Your task to perform on an android device: Open the phone app and click the voicemail tab. Image 0: 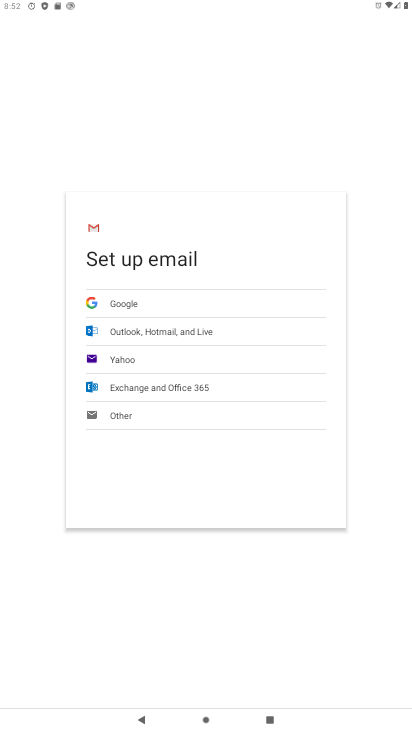
Step 0: press home button
Your task to perform on an android device: Open the phone app and click the voicemail tab. Image 1: 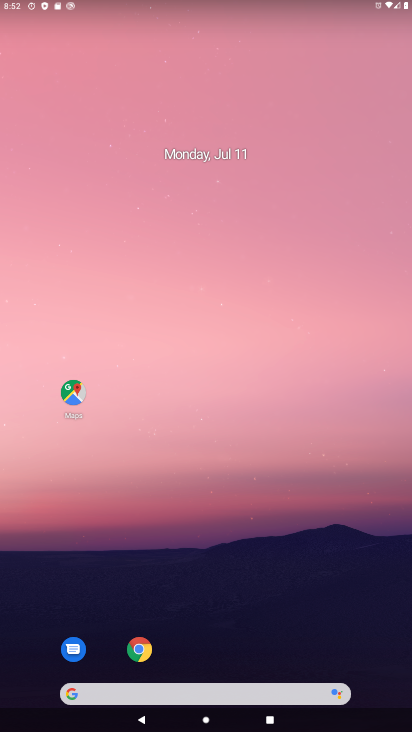
Step 1: drag from (200, 694) to (305, 117)
Your task to perform on an android device: Open the phone app and click the voicemail tab. Image 2: 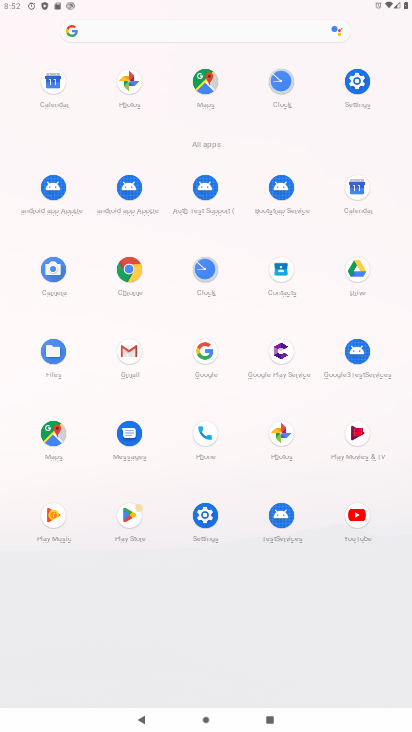
Step 2: click (204, 433)
Your task to perform on an android device: Open the phone app and click the voicemail tab. Image 3: 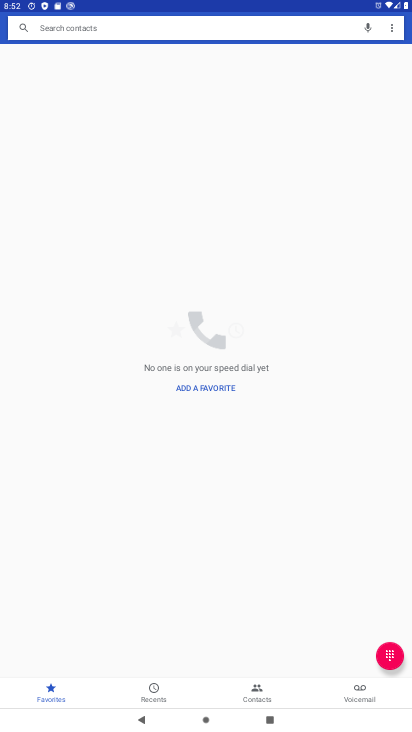
Step 3: click (361, 685)
Your task to perform on an android device: Open the phone app and click the voicemail tab. Image 4: 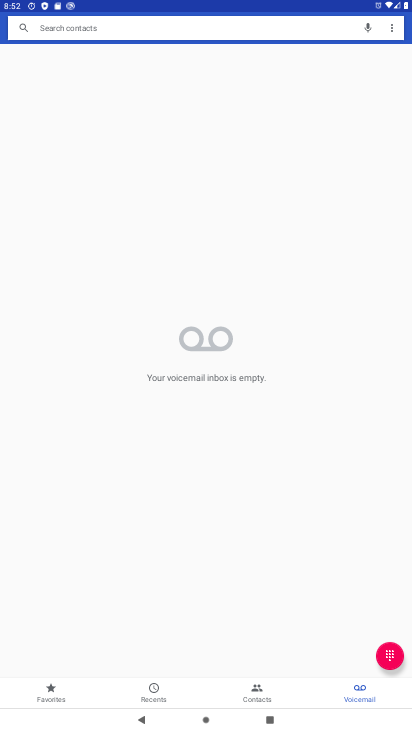
Step 4: task complete